Your task to perform on an android device: What is the recent news? Image 0: 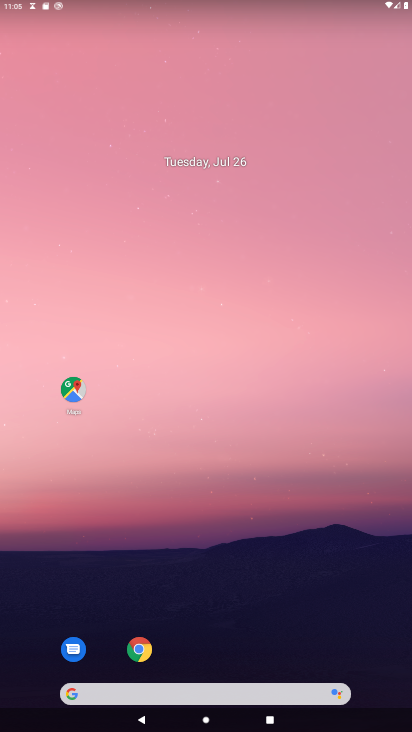
Step 0: click (196, 688)
Your task to perform on an android device: What is the recent news? Image 1: 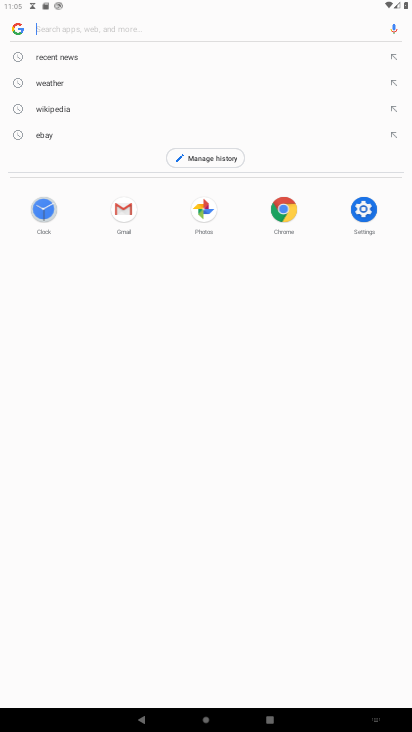
Step 1: click (70, 54)
Your task to perform on an android device: What is the recent news? Image 2: 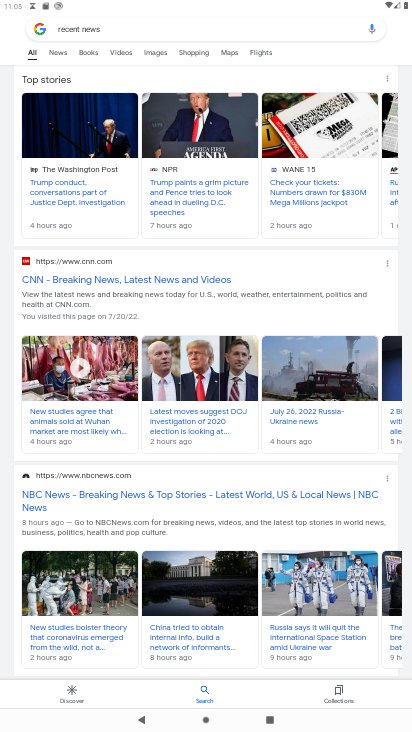
Step 2: task complete